Your task to perform on an android device: toggle notification dots Image 0: 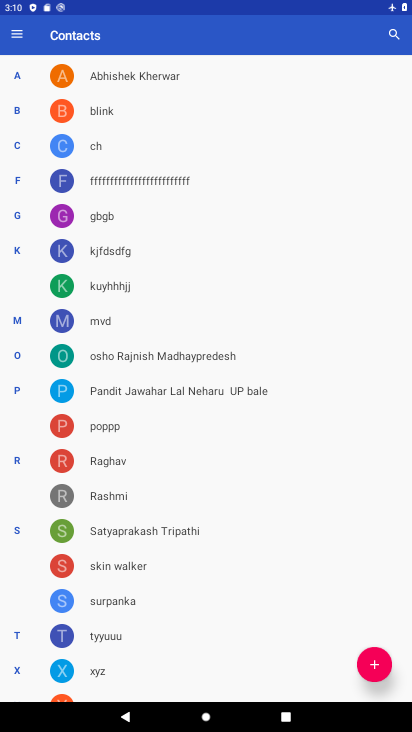
Step 0: press home button
Your task to perform on an android device: toggle notification dots Image 1: 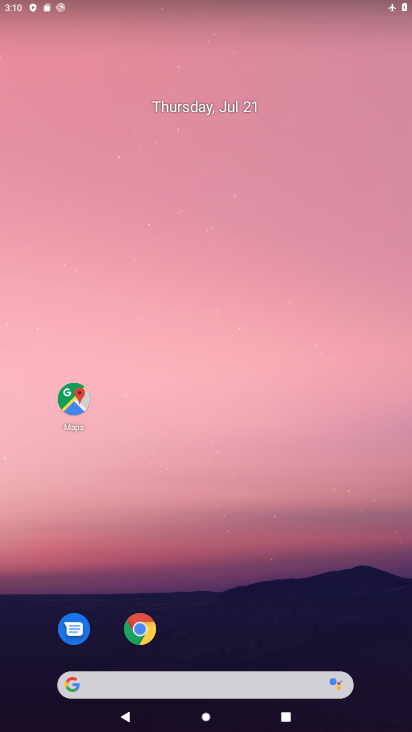
Step 1: drag from (248, 591) to (273, 144)
Your task to perform on an android device: toggle notification dots Image 2: 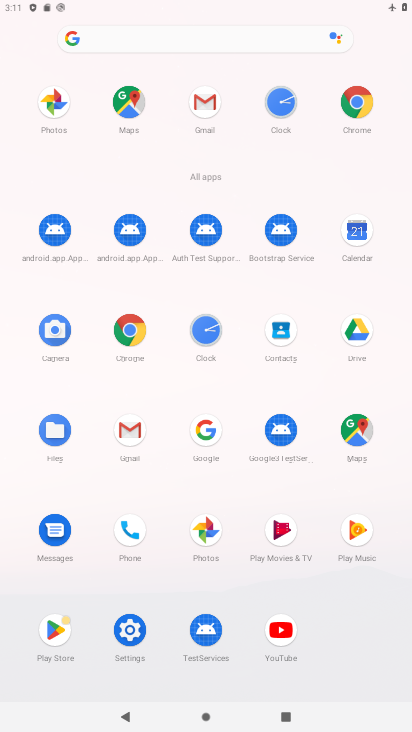
Step 2: click (129, 642)
Your task to perform on an android device: toggle notification dots Image 3: 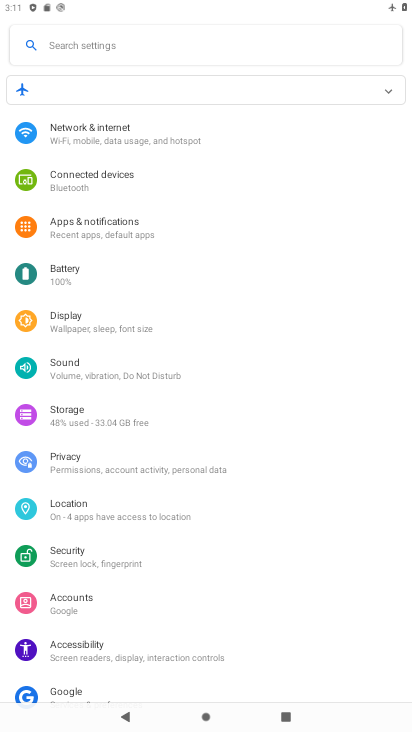
Step 3: click (152, 231)
Your task to perform on an android device: toggle notification dots Image 4: 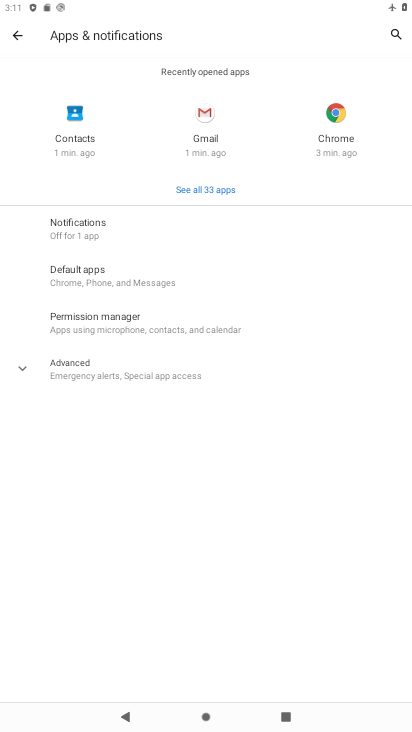
Step 4: click (117, 227)
Your task to perform on an android device: toggle notification dots Image 5: 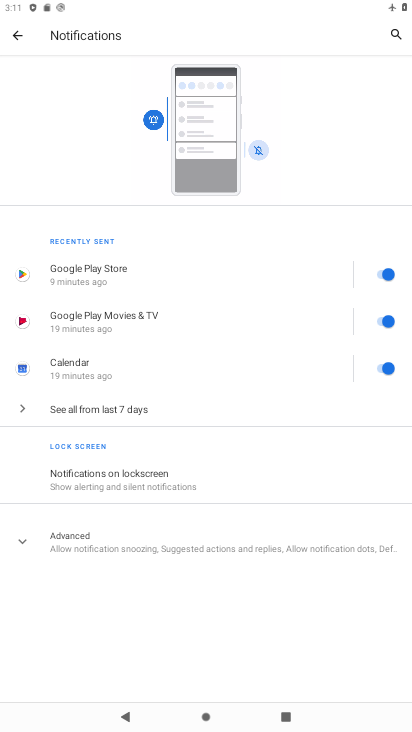
Step 5: click (154, 536)
Your task to perform on an android device: toggle notification dots Image 6: 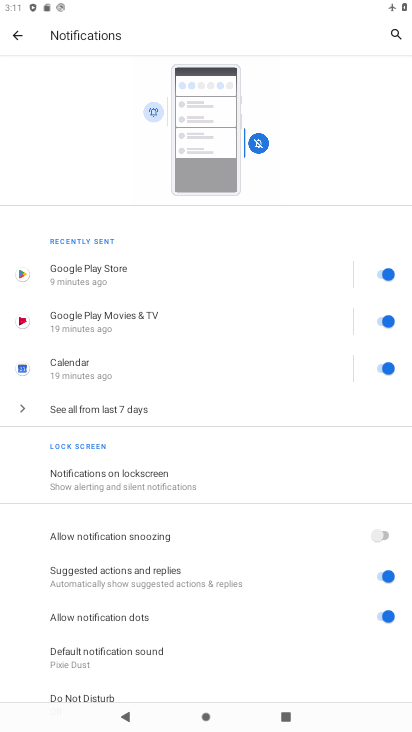
Step 6: click (381, 622)
Your task to perform on an android device: toggle notification dots Image 7: 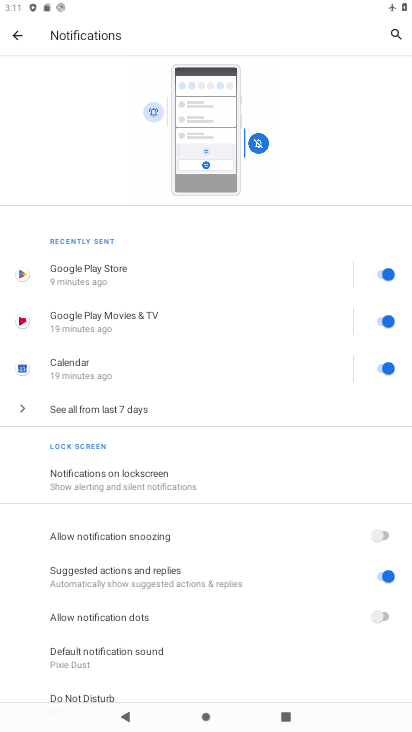
Step 7: task complete